Your task to perform on an android device: find photos in the google photos app Image 0: 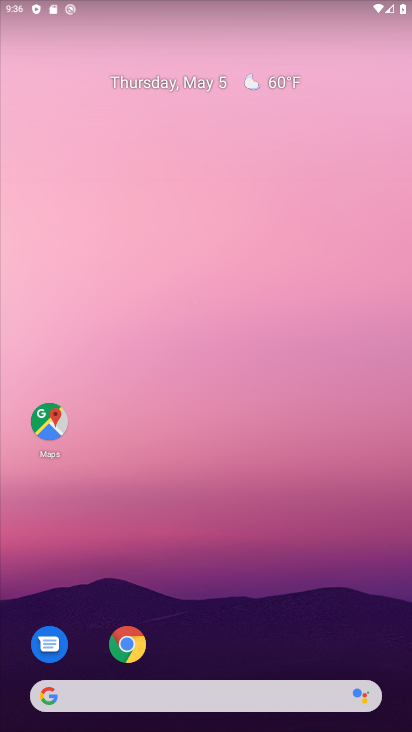
Step 0: drag from (360, 645) to (375, 92)
Your task to perform on an android device: find photos in the google photos app Image 1: 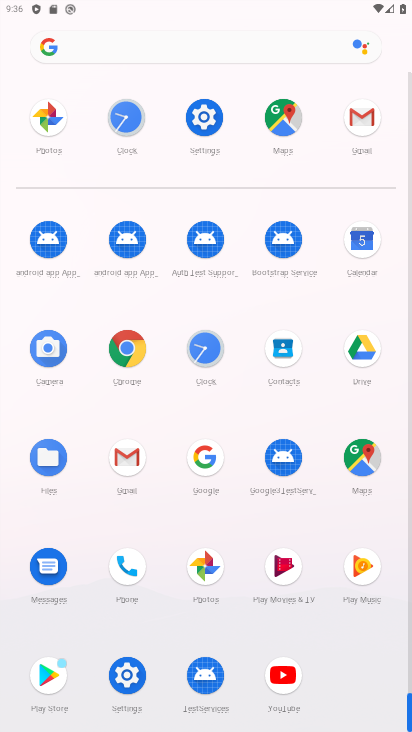
Step 1: click (199, 567)
Your task to perform on an android device: find photos in the google photos app Image 2: 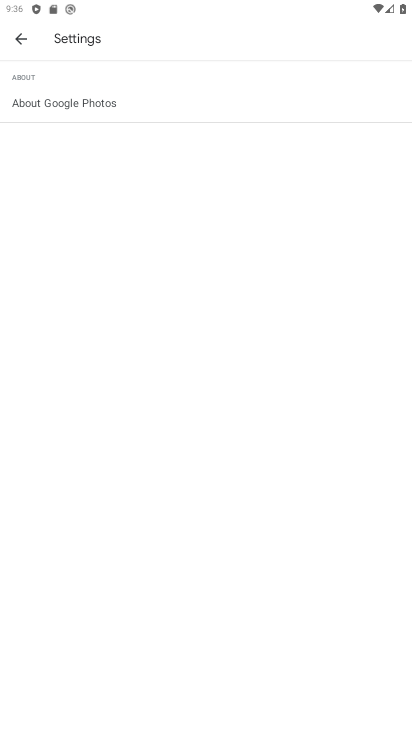
Step 2: click (19, 38)
Your task to perform on an android device: find photos in the google photos app Image 3: 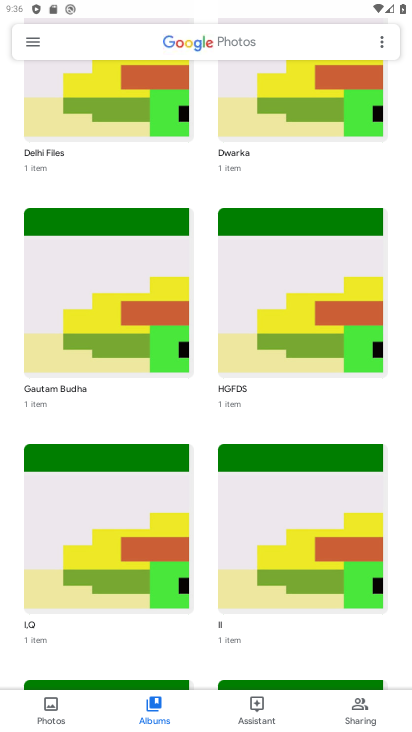
Step 3: click (45, 706)
Your task to perform on an android device: find photos in the google photos app Image 4: 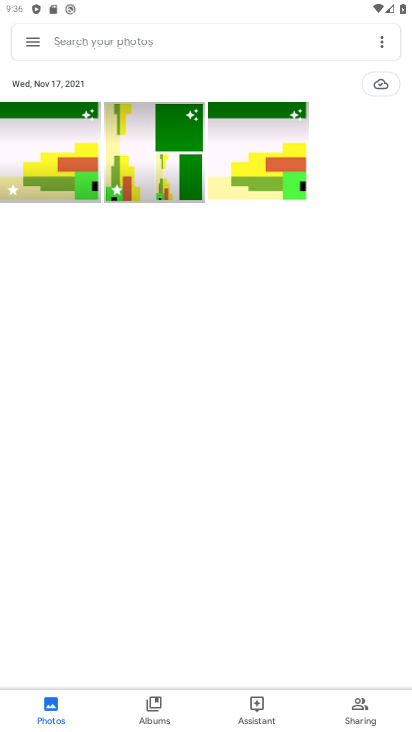
Step 4: click (78, 161)
Your task to perform on an android device: find photos in the google photos app Image 5: 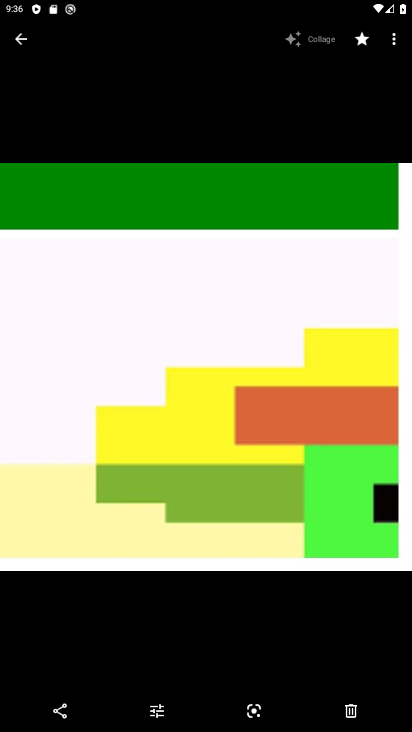
Step 5: task complete